Your task to perform on an android device: open wifi settings Image 0: 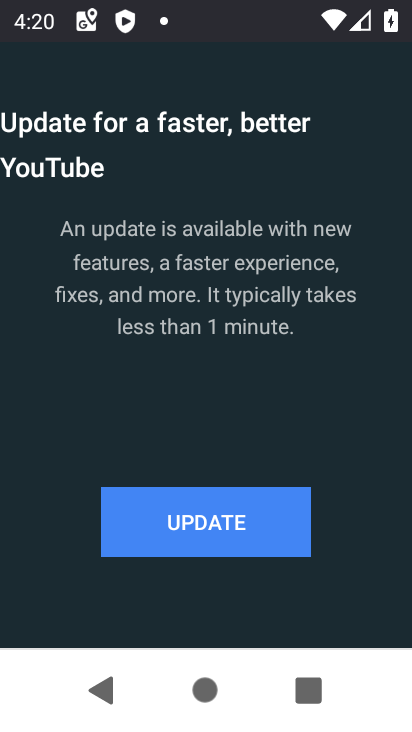
Step 0: press home button
Your task to perform on an android device: open wifi settings Image 1: 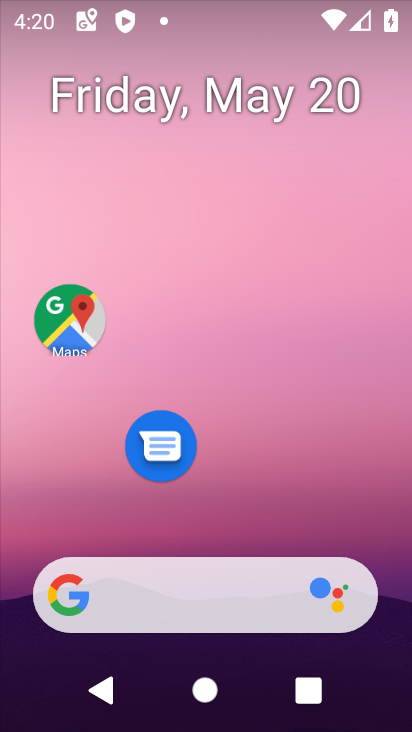
Step 1: drag from (185, 489) to (298, 7)
Your task to perform on an android device: open wifi settings Image 2: 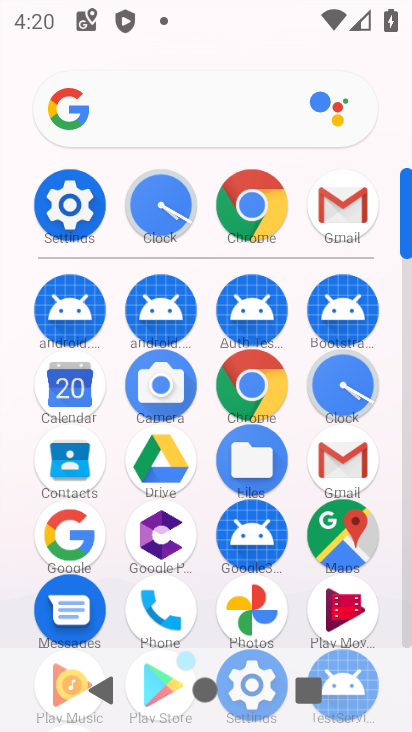
Step 2: click (75, 225)
Your task to perform on an android device: open wifi settings Image 3: 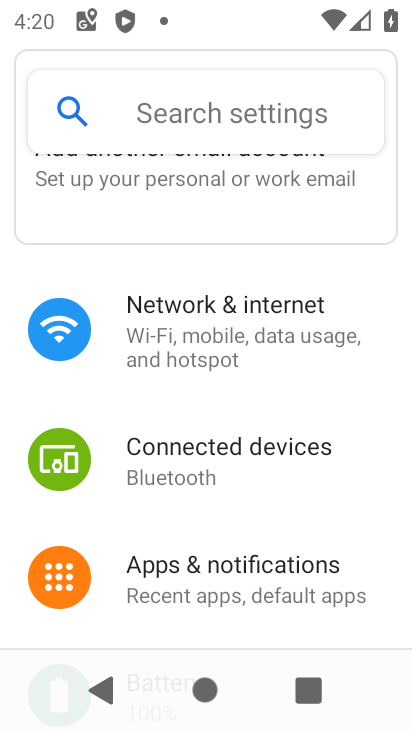
Step 3: click (223, 319)
Your task to perform on an android device: open wifi settings Image 4: 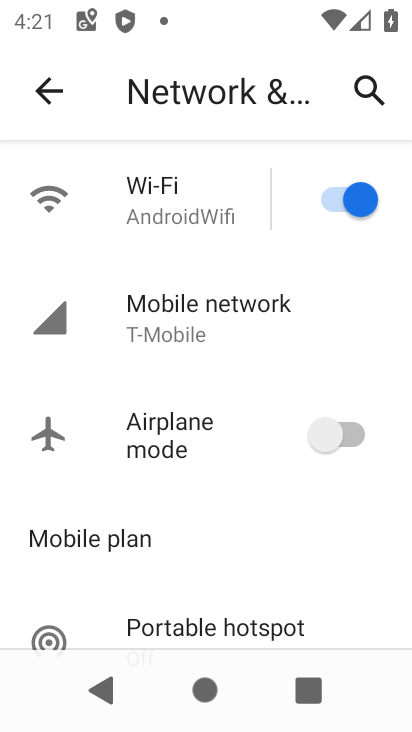
Step 4: click (177, 215)
Your task to perform on an android device: open wifi settings Image 5: 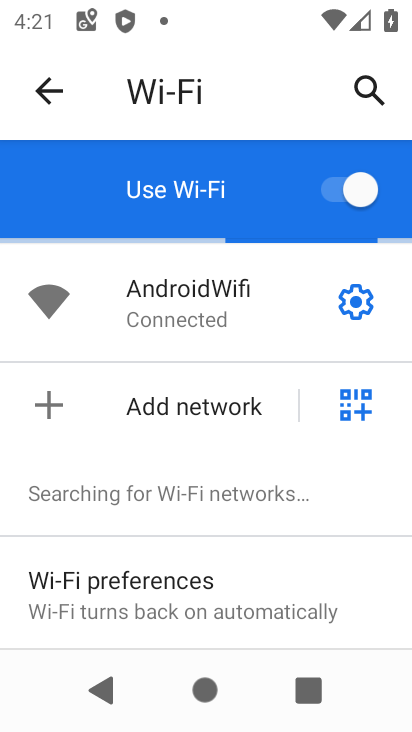
Step 5: task complete